Your task to perform on an android device: Do I have any events this weekend? Image 0: 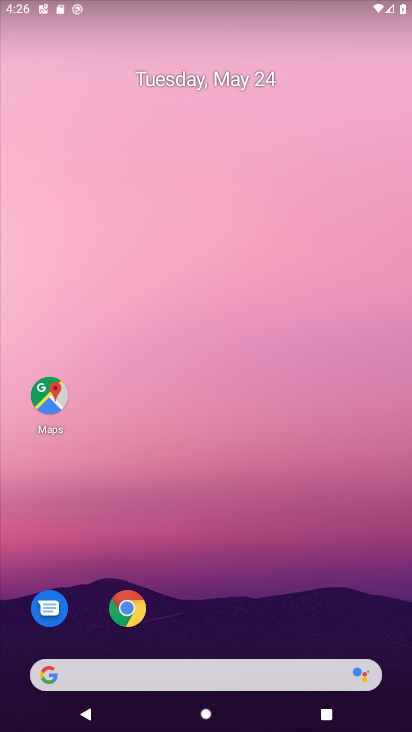
Step 0: drag from (237, 651) to (202, 134)
Your task to perform on an android device: Do I have any events this weekend? Image 1: 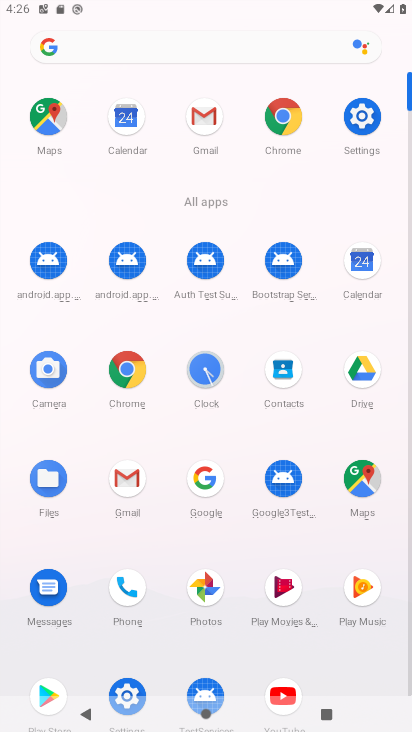
Step 1: click (359, 259)
Your task to perform on an android device: Do I have any events this weekend? Image 2: 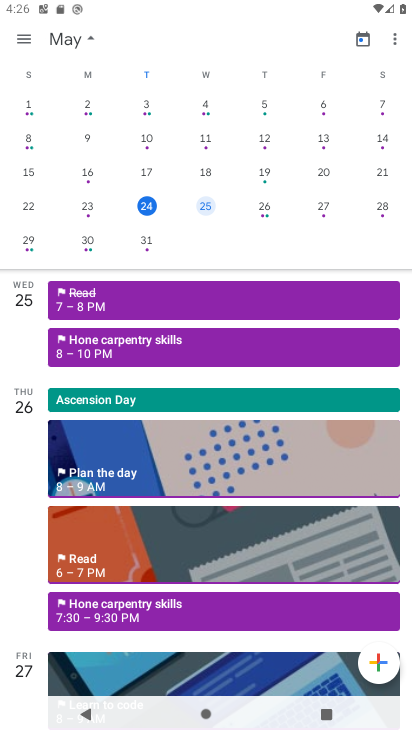
Step 2: click (23, 243)
Your task to perform on an android device: Do I have any events this weekend? Image 3: 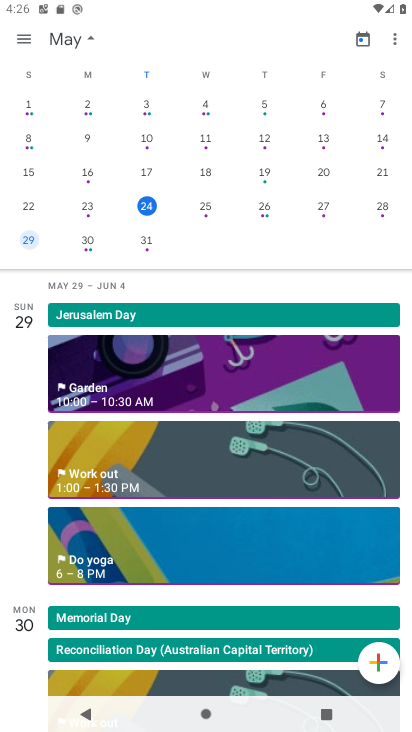
Step 3: click (122, 321)
Your task to perform on an android device: Do I have any events this weekend? Image 4: 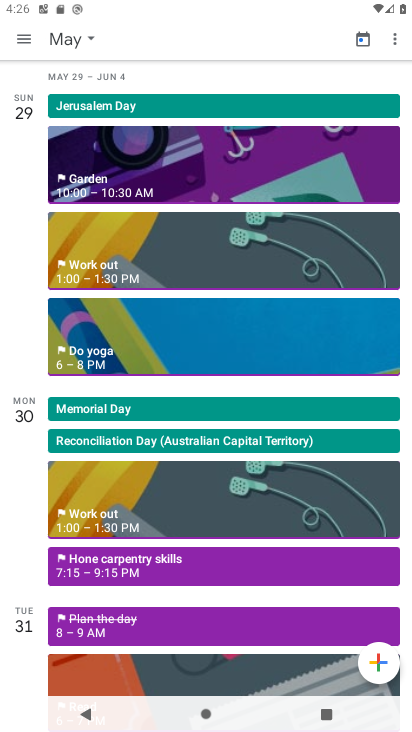
Step 4: task complete